Your task to perform on an android device: Show me recent news Image 0: 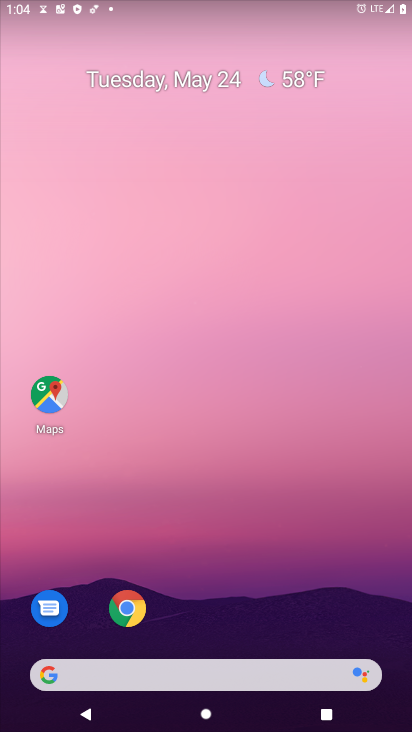
Step 0: drag from (279, 681) to (306, 211)
Your task to perform on an android device: Show me recent news Image 1: 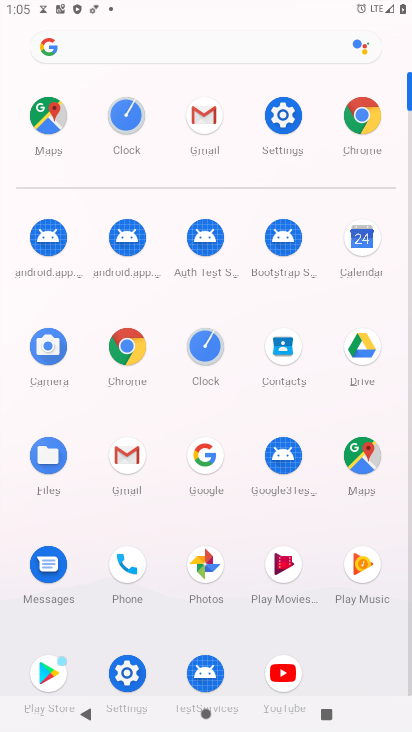
Step 1: click (139, 41)
Your task to perform on an android device: Show me recent news Image 2: 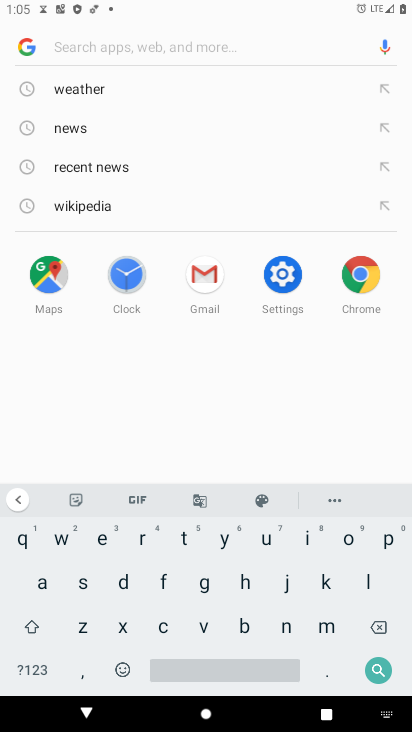
Step 2: click (95, 158)
Your task to perform on an android device: Show me recent news Image 3: 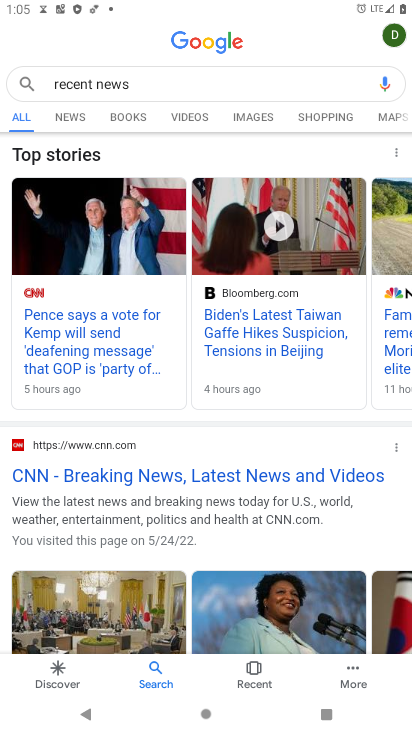
Step 3: task complete